Your task to perform on an android device: open app "Spotify" (install if not already installed) and enter user name: "infallible@icloud.com" and password: "implored" Image 0: 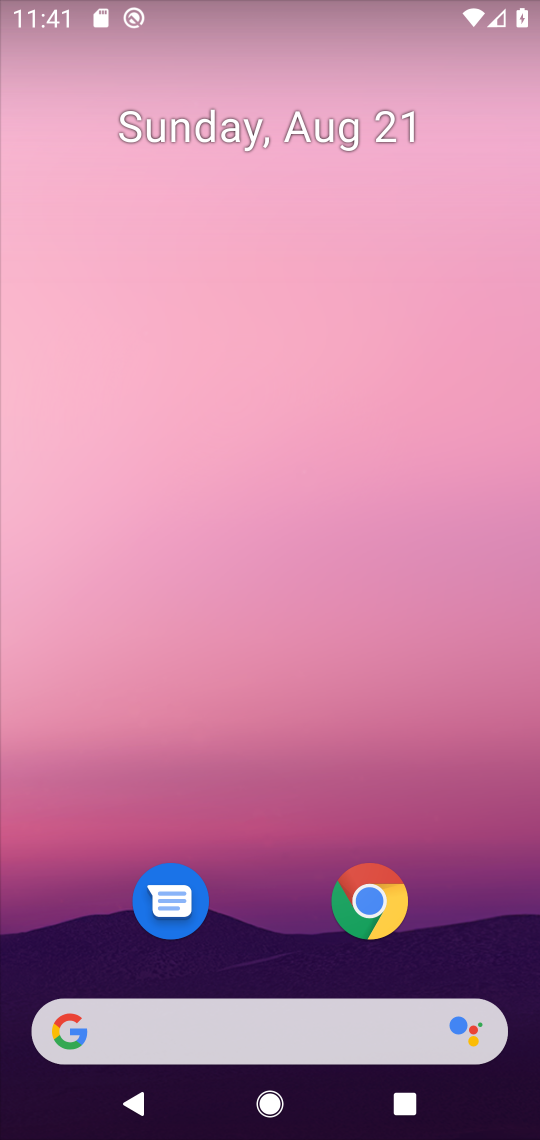
Step 0: drag from (267, 955) to (266, 232)
Your task to perform on an android device: open app "Spotify" (install if not already installed) and enter user name: "infallible@icloud.com" and password: "implored" Image 1: 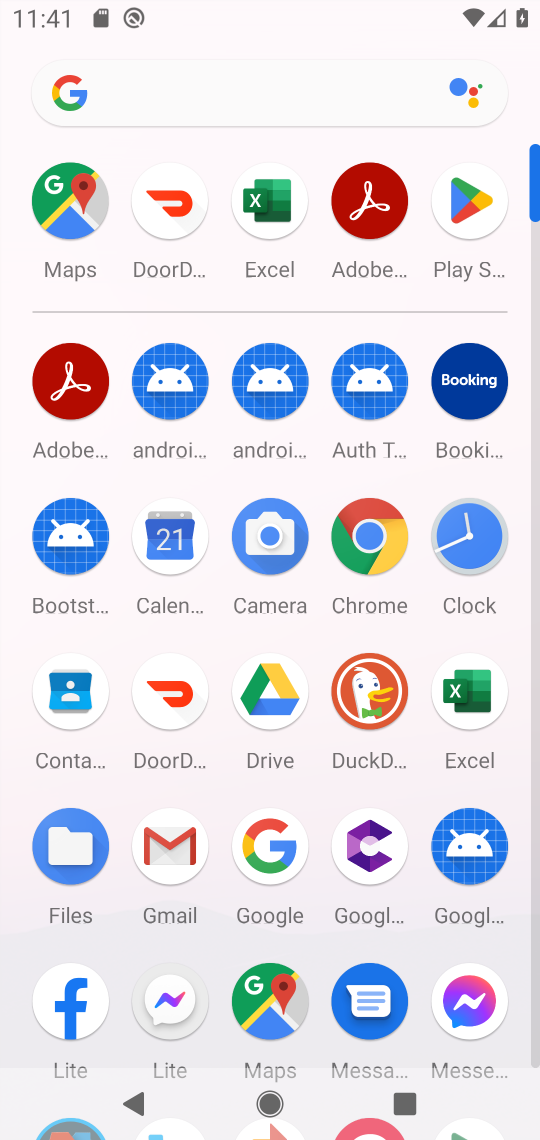
Step 1: click (441, 248)
Your task to perform on an android device: open app "Spotify" (install if not already installed) and enter user name: "infallible@icloud.com" and password: "implored" Image 2: 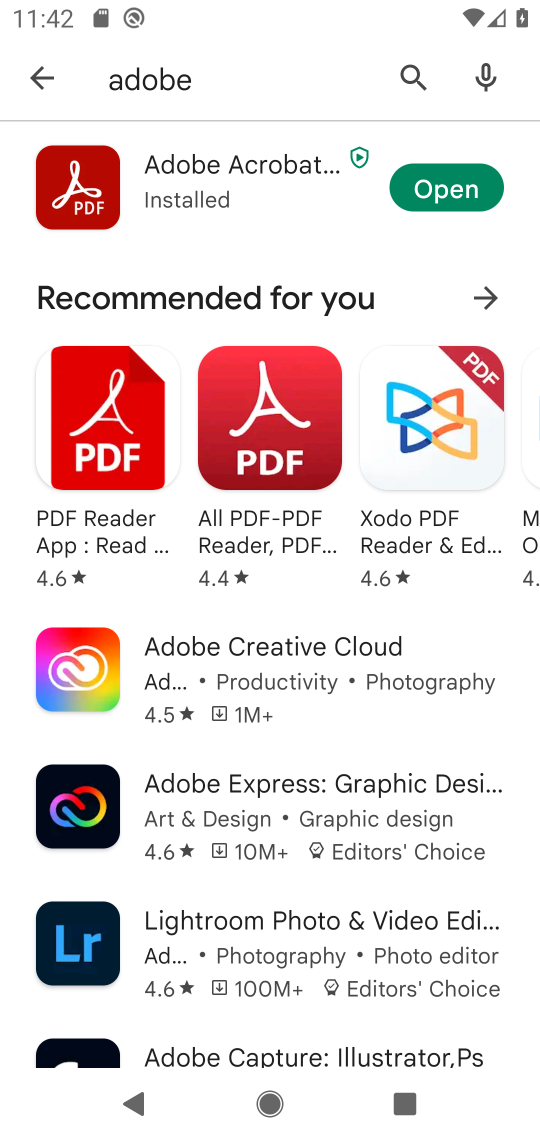
Step 2: click (413, 104)
Your task to perform on an android device: open app "Spotify" (install if not already installed) and enter user name: "infallible@icloud.com" and password: "implored" Image 3: 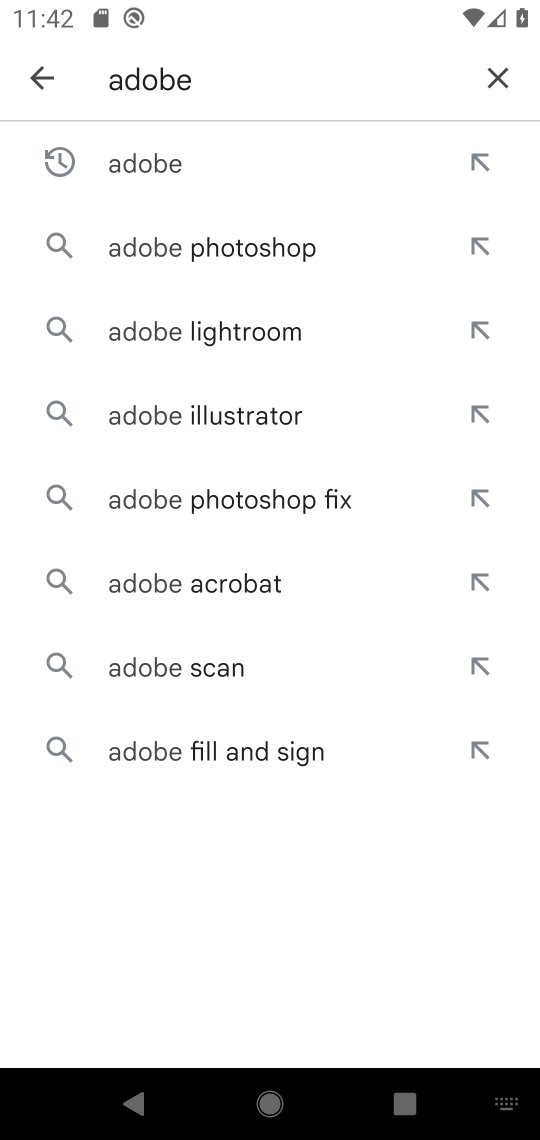
Step 3: click (504, 65)
Your task to perform on an android device: open app "Spotify" (install if not already installed) and enter user name: "infallible@icloud.com" and password: "implored" Image 4: 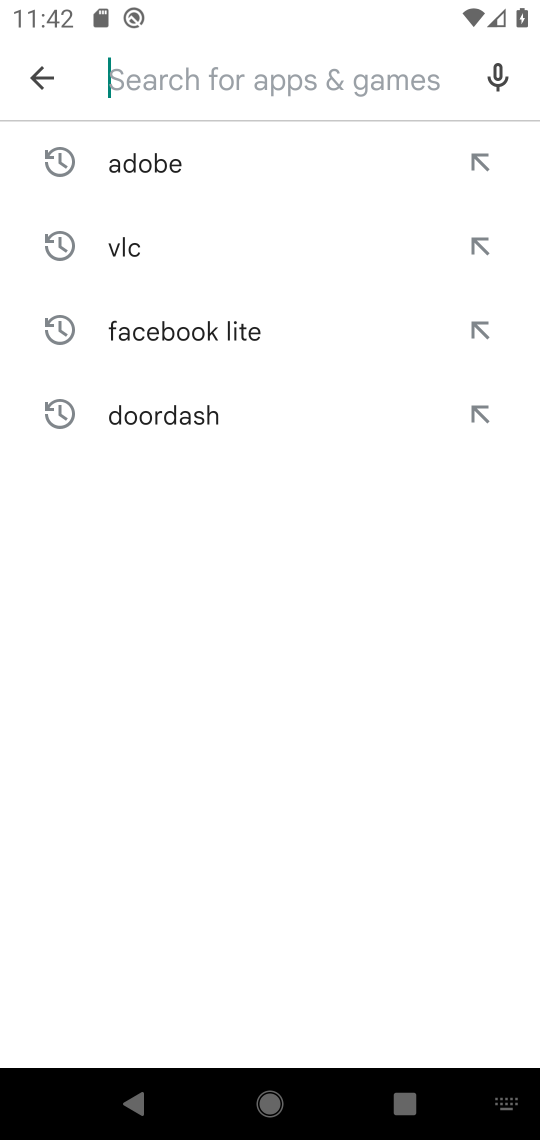
Step 4: type "spotify"
Your task to perform on an android device: open app "Spotify" (install if not already installed) and enter user name: "infallible@icloud.com" and password: "implored" Image 5: 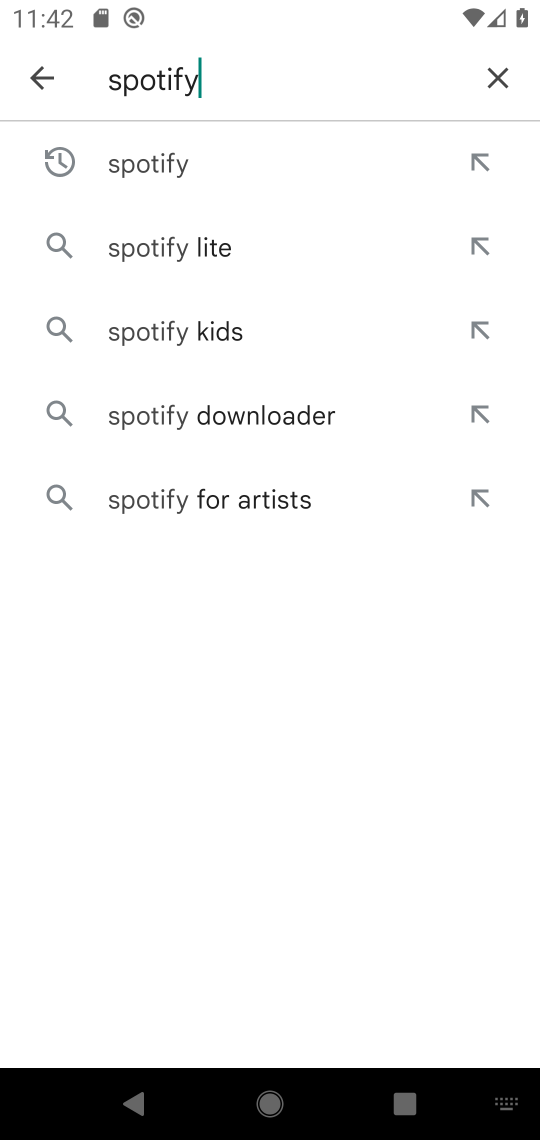
Step 5: click (195, 162)
Your task to perform on an android device: open app "Spotify" (install if not already installed) and enter user name: "infallible@icloud.com" and password: "implored" Image 6: 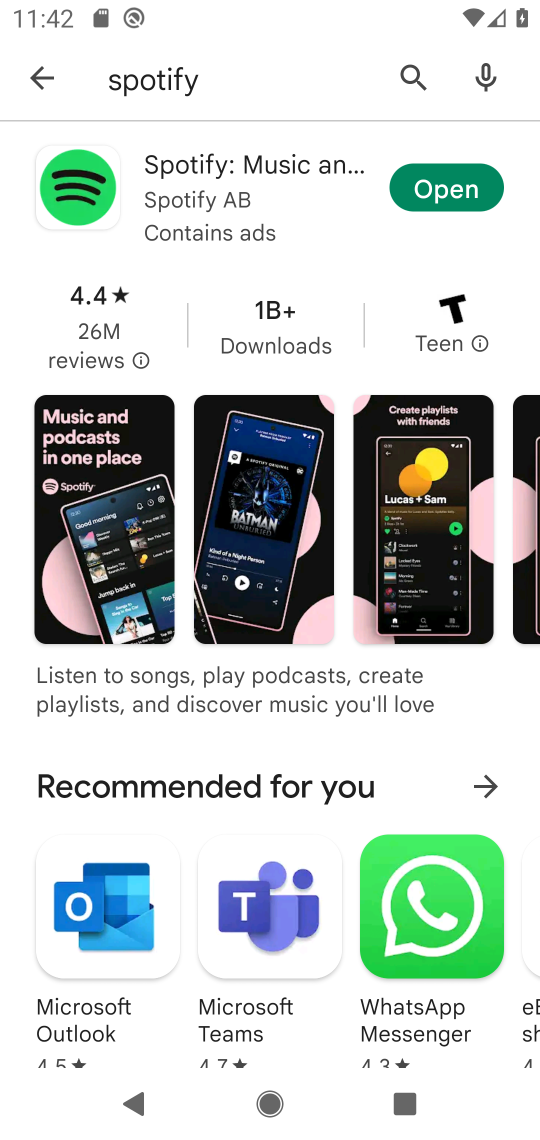
Step 6: click (432, 209)
Your task to perform on an android device: open app "Spotify" (install if not already installed) and enter user name: "infallible@icloud.com" and password: "implored" Image 7: 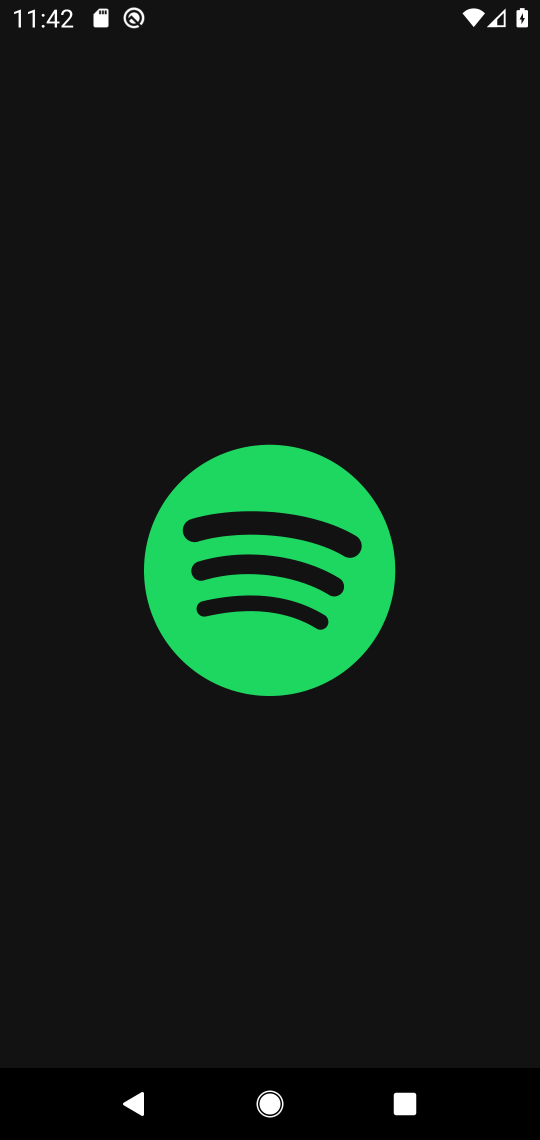
Step 7: task complete